Your task to perform on an android device: move a message to another label in the gmail app Image 0: 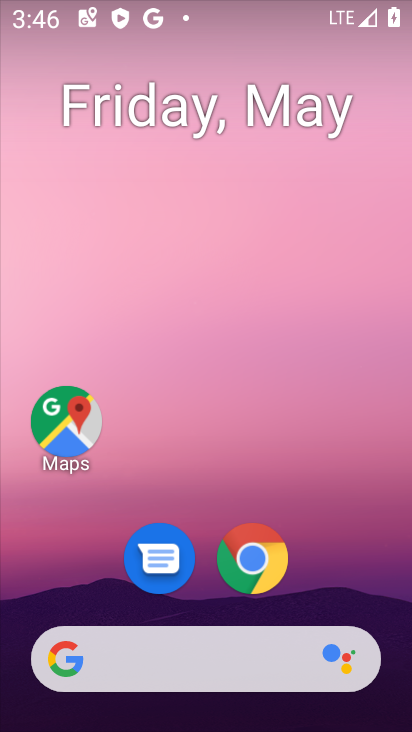
Step 0: press home button
Your task to perform on an android device: move a message to another label in the gmail app Image 1: 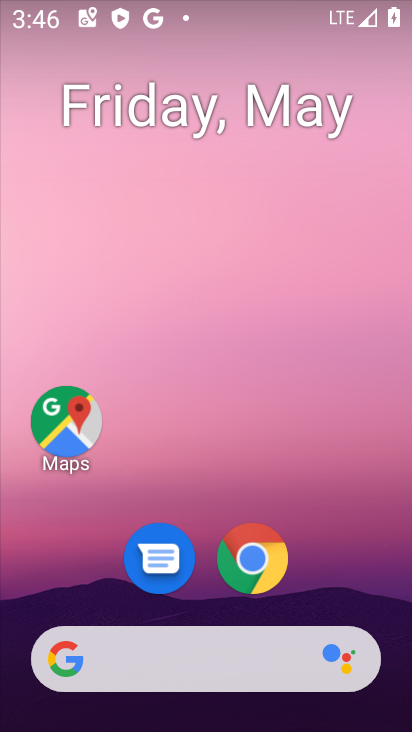
Step 1: drag from (144, 669) to (291, 188)
Your task to perform on an android device: move a message to another label in the gmail app Image 2: 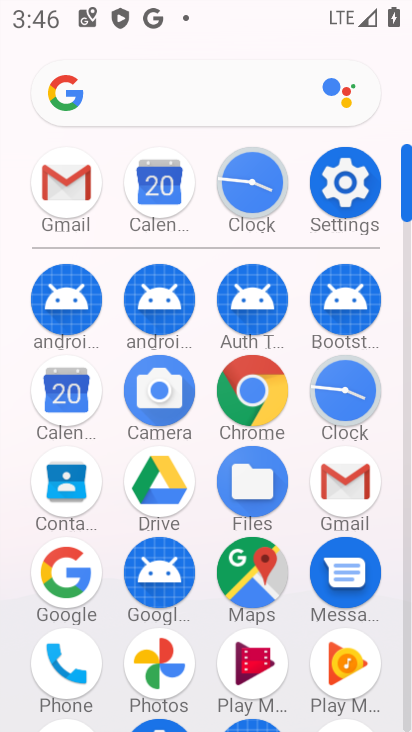
Step 2: click (75, 202)
Your task to perform on an android device: move a message to another label in the gmail app Image 3: 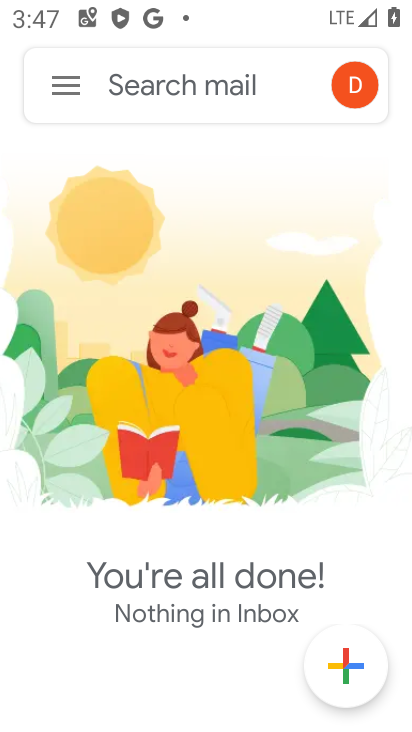
Step 3: task complete